Your task to perform on an android device: Clear the cart on costco. Add acer predator to the cart on costco Image 0: 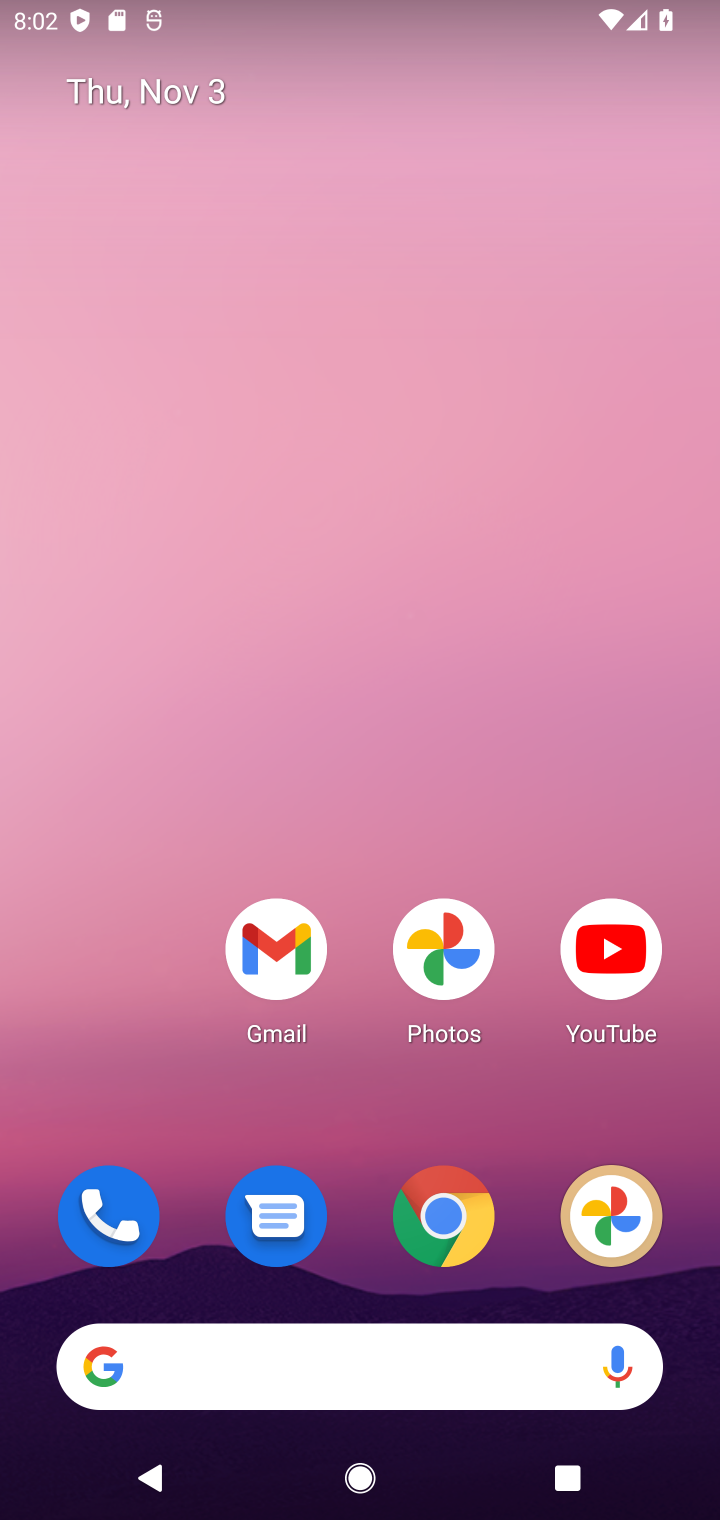
Step 0: click (452, 1218)
Your task to perform on an android device: Clear the cart on costco. Add acer predator to the cart on costco Image 1: 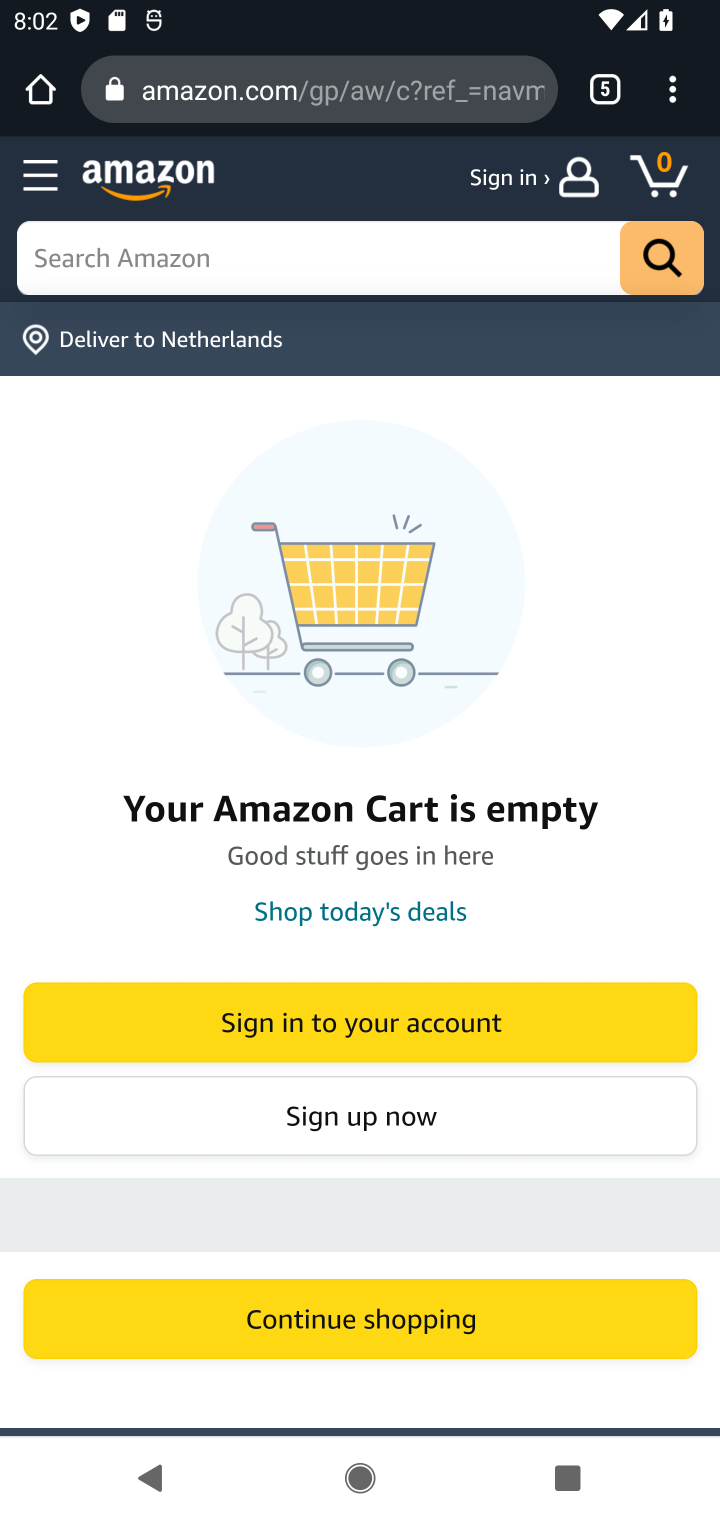
Step 1: click (612, 100)
Your task to perform on an android device: Clear the cart on costco. Add acer predator to the cart on costco Image 2: 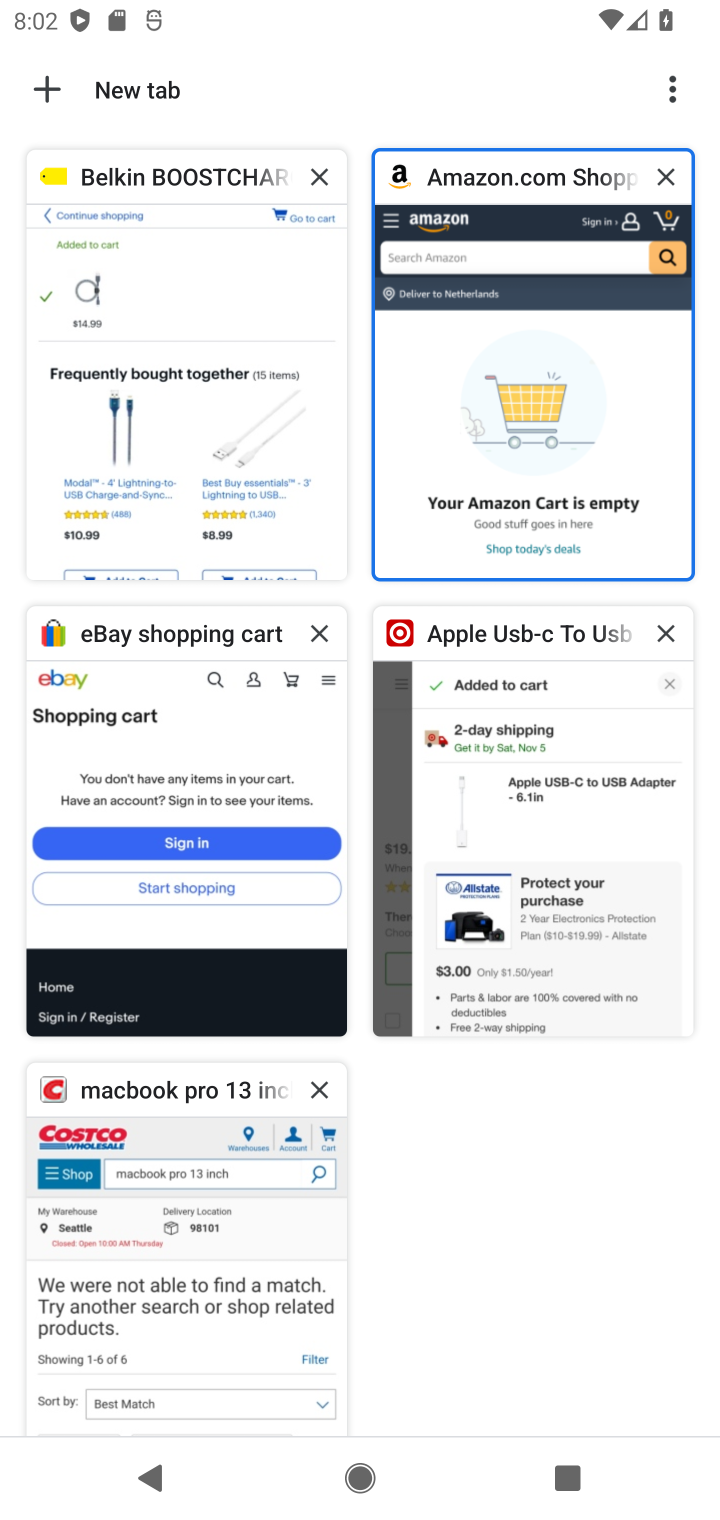
Step 2: click (215, 1211)
Your task to perform on an android device: Clear the cart on costco. Add acer predator to the cart on costco Image 3: 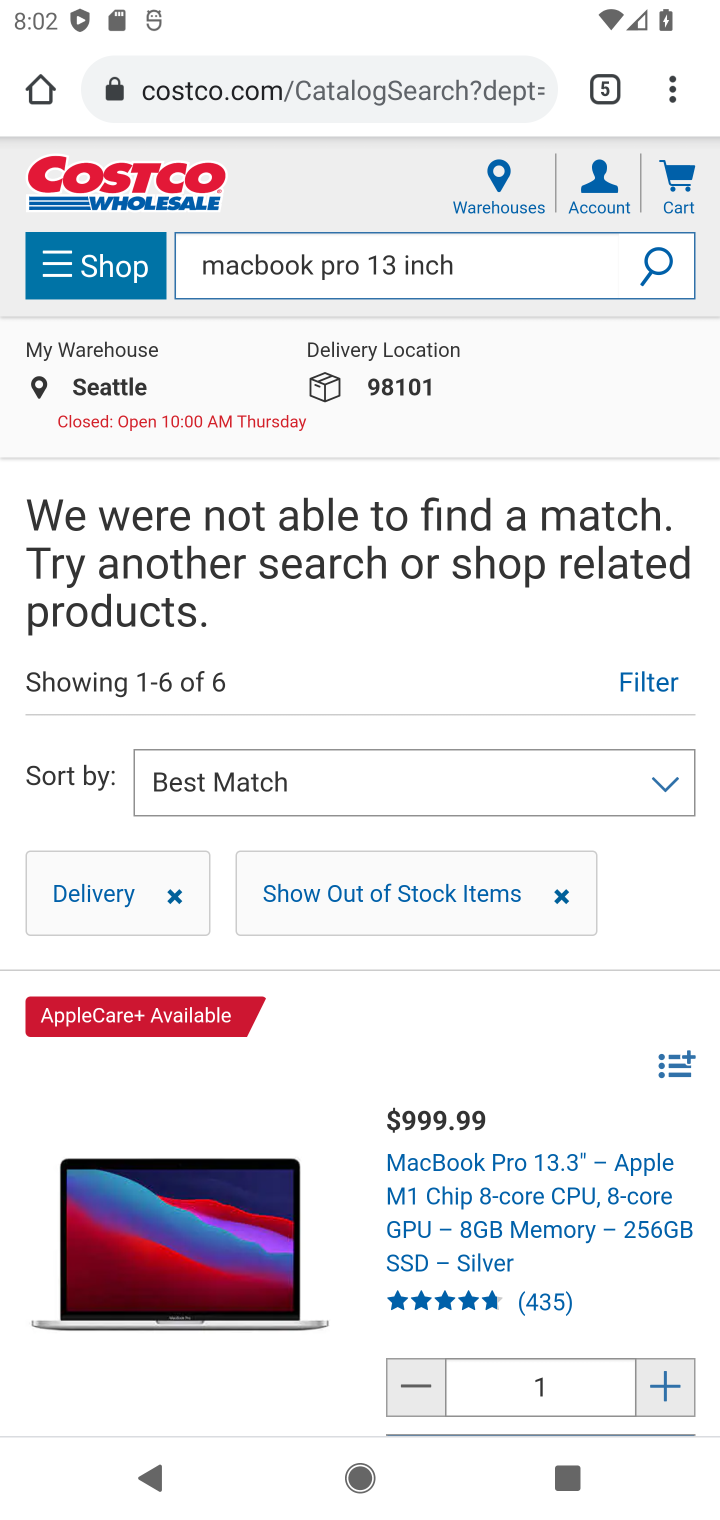
Step 3: click (666, 194)
Your task to perform on an android device: Clear the cart on costco. Add acer predator to the cart on costco Image 4: 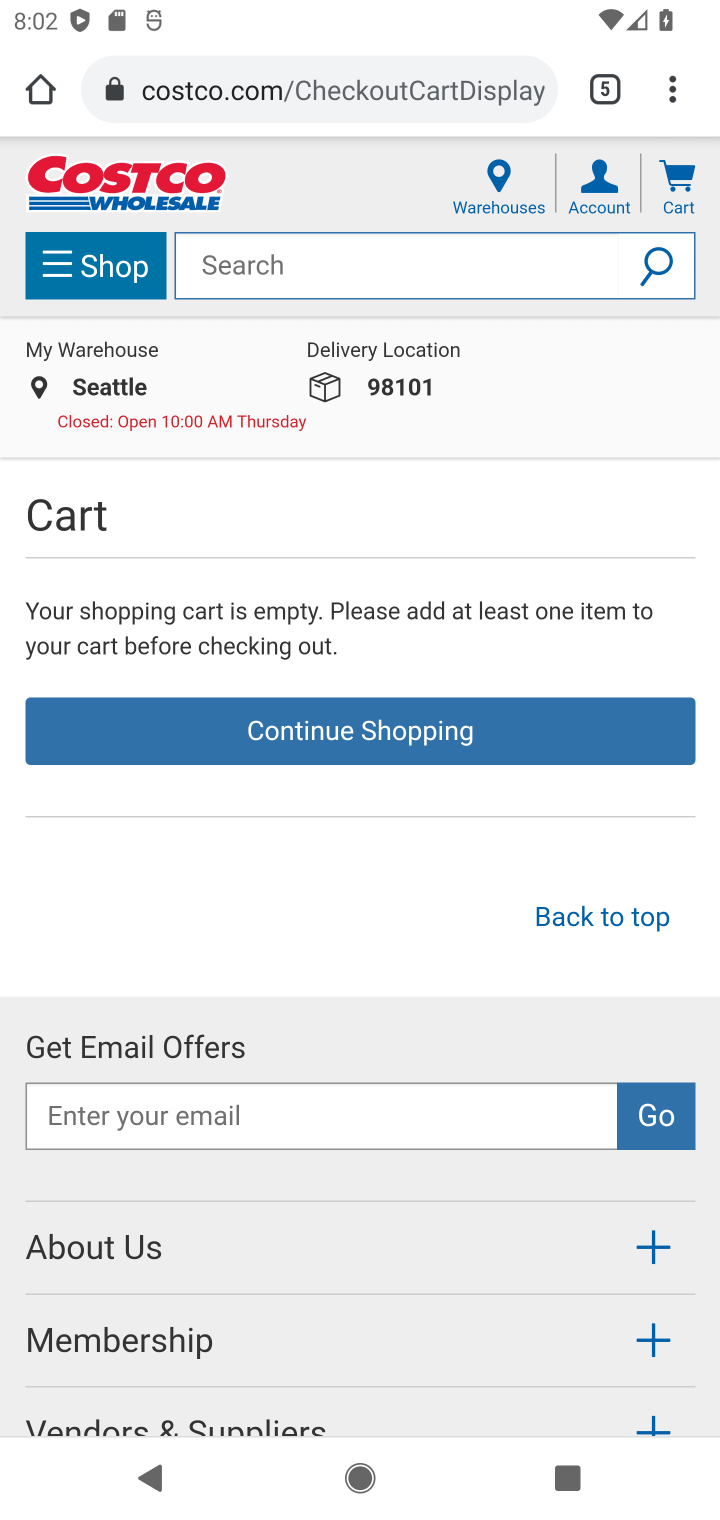
Step 4: click (451, 283)
Your task to perform on an android device: Clear the cart on costco. Add acer predator to the cart on costco Image 5: 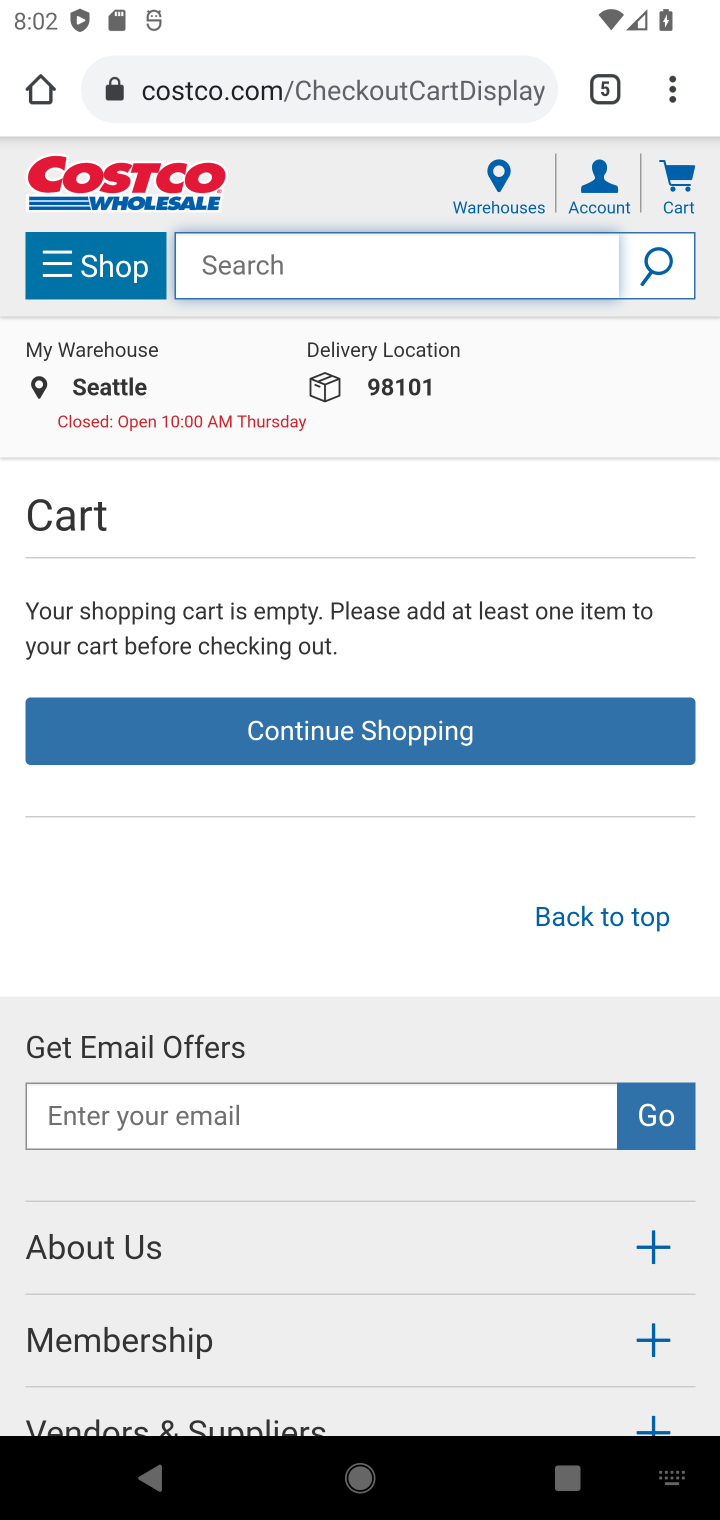
Step 5: type "acer predator"
Your task to perform on an android device: Clear the cart on costco. Add acer predator to the cart on costco Image 6: 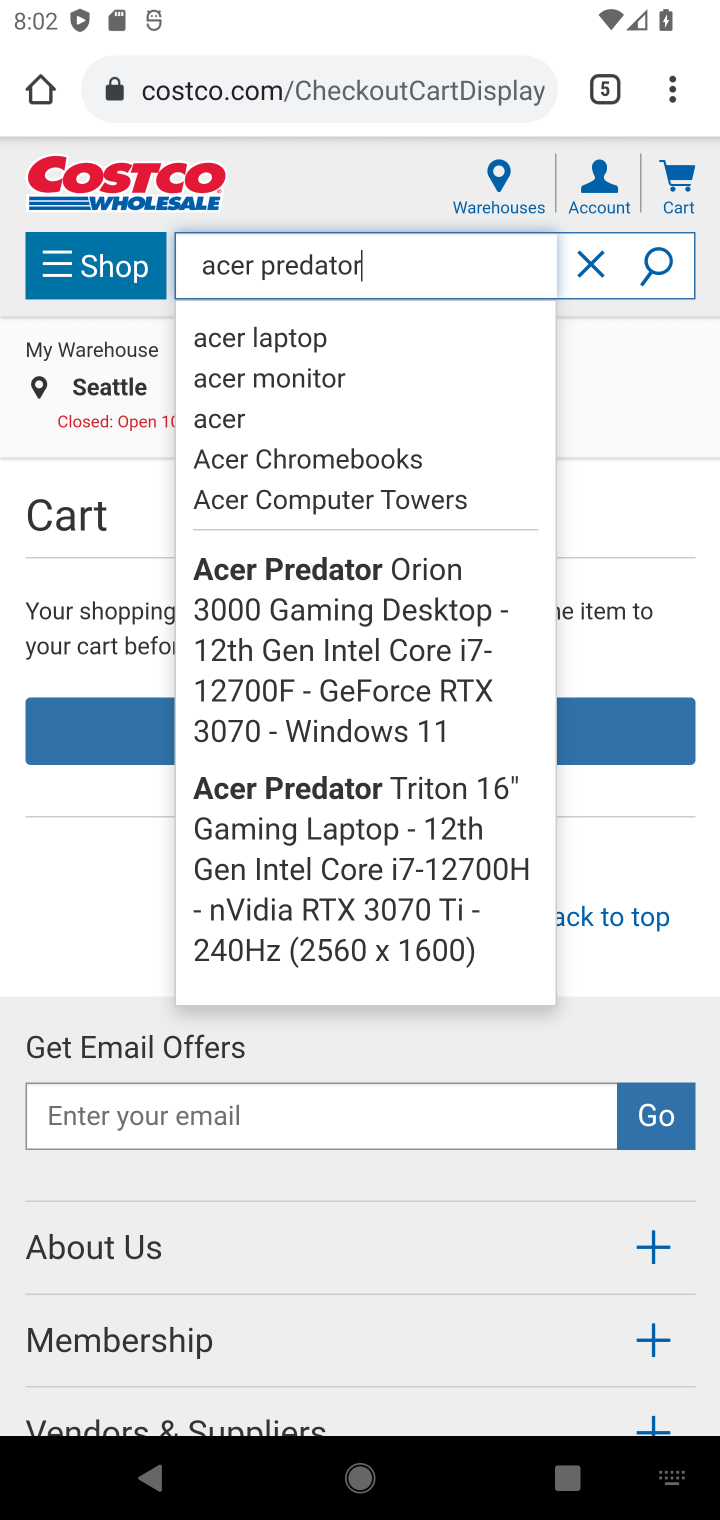
Step 6: press enter
Your task to perform on an android device: Clear the cart on costco. Add acer predator to the cart on costco Image 7: 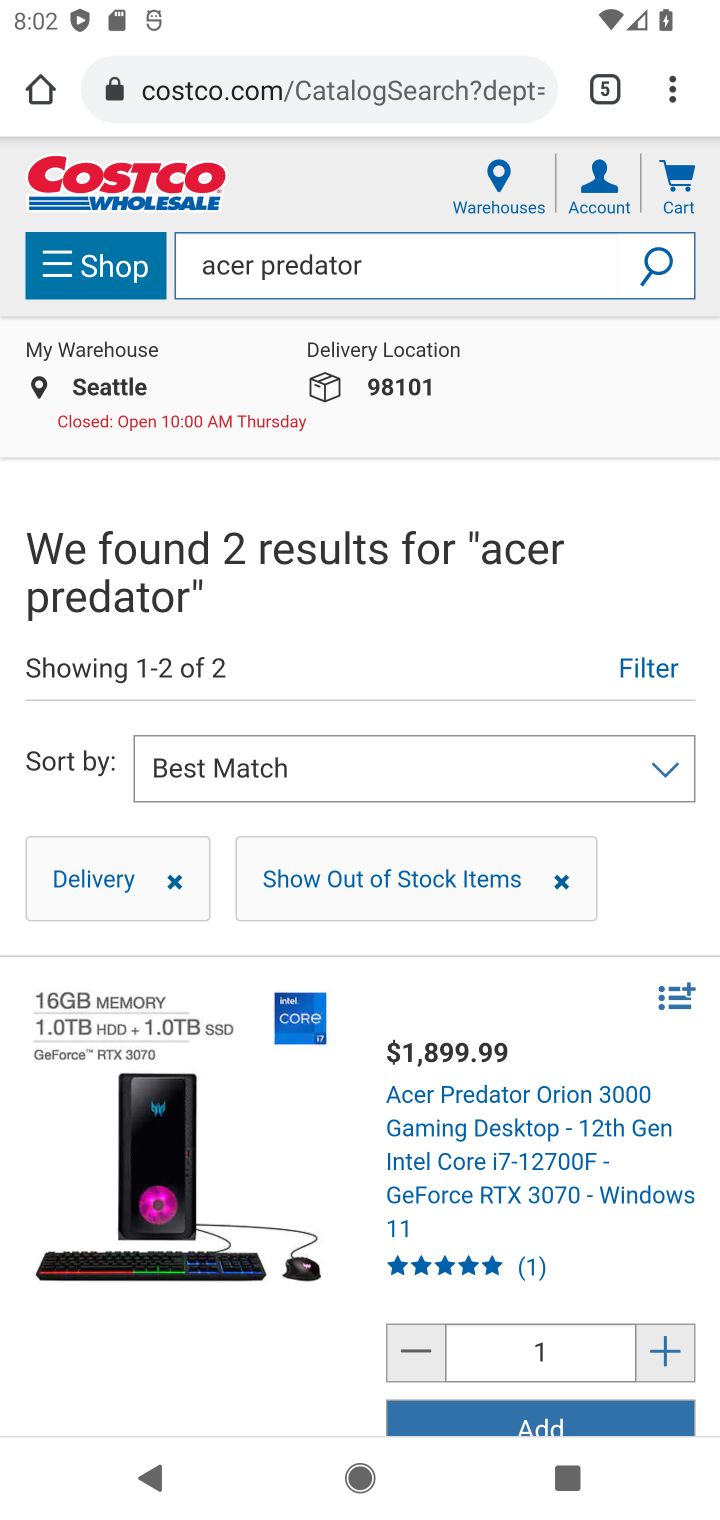
Step 7: task complete